Your task to perform on an android device: turn notification dots off Image 0: 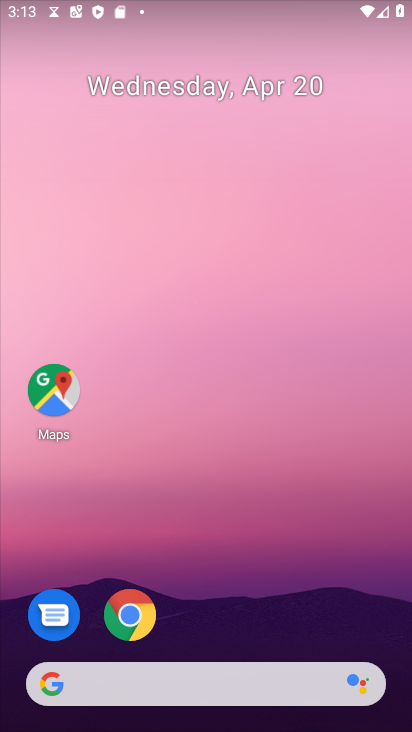
Step 0: drag from (207, 627) to (323, 168)
Your task to perform on an android device: turn notification dots off Image 1: 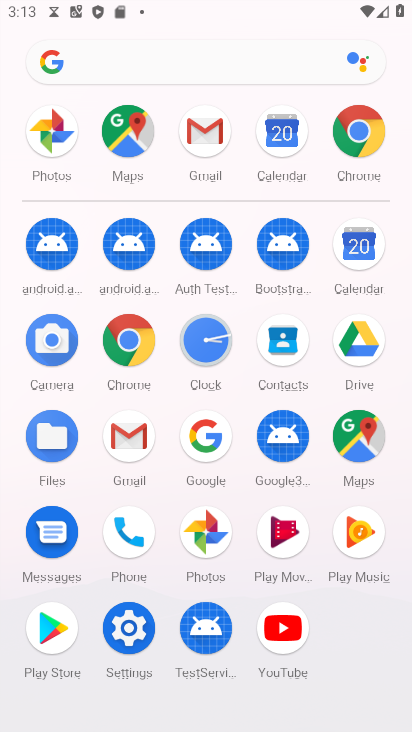
Step 1: click (124, 624)
Your task to perform on an android device: turn notification dots off Image 2: 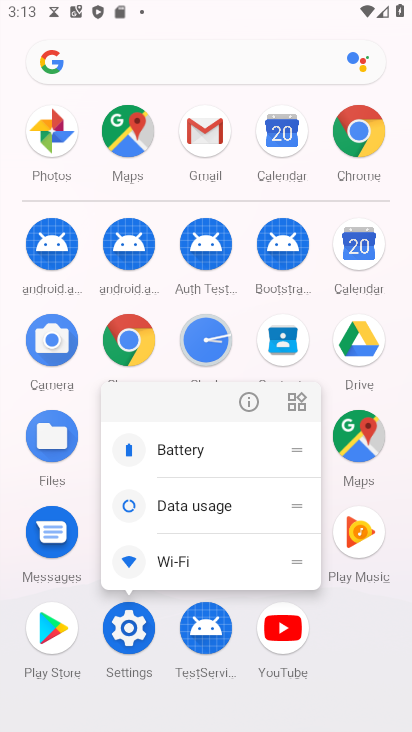
Step 2: click (250, 404)
Your task to perform on an android device: turn notification dots off Image 3: 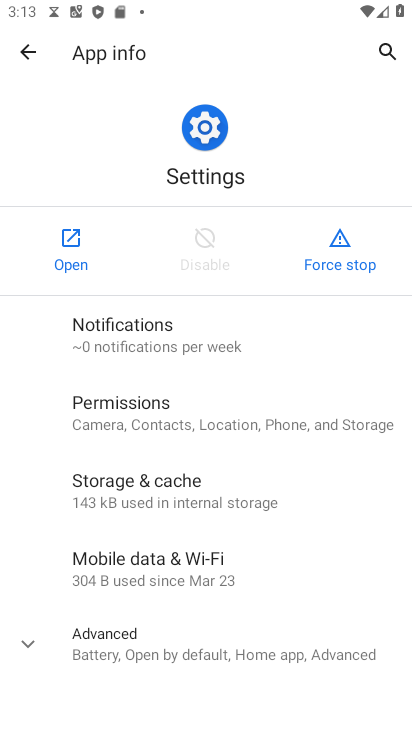
Step 3: click (59, 238)
Your task to perform on an android device: turn notification dots off Image 4: 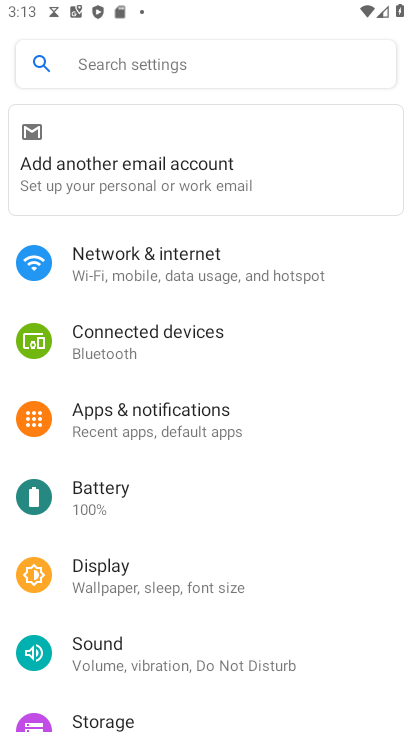
Step 4: click (196, 434)
Your task to perform on an android device: turn notification dots off Image 5: 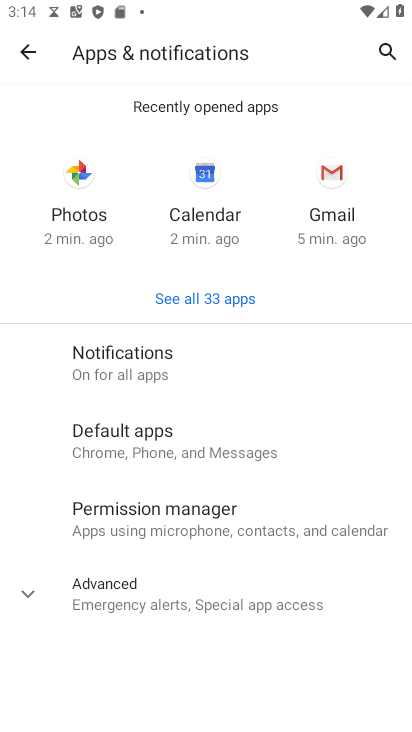
Step 5: click (160, 345)
Your task to perform on an android device: turn notification dots off Image 6: 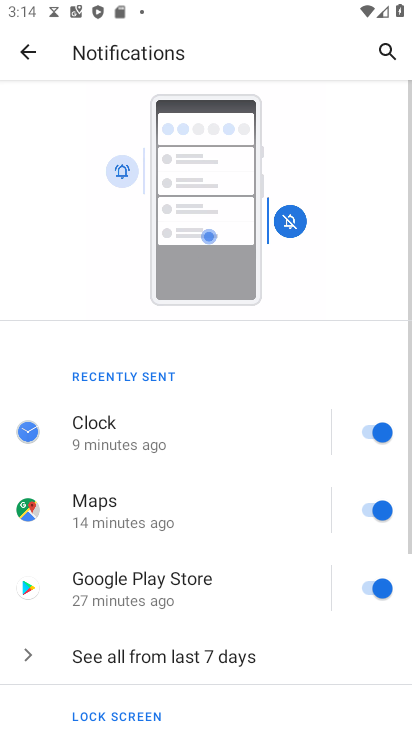
Step 6: drag from (244, 618) to (408, 141)
Your task to perform on an android device: turn notification dots off Image 7: 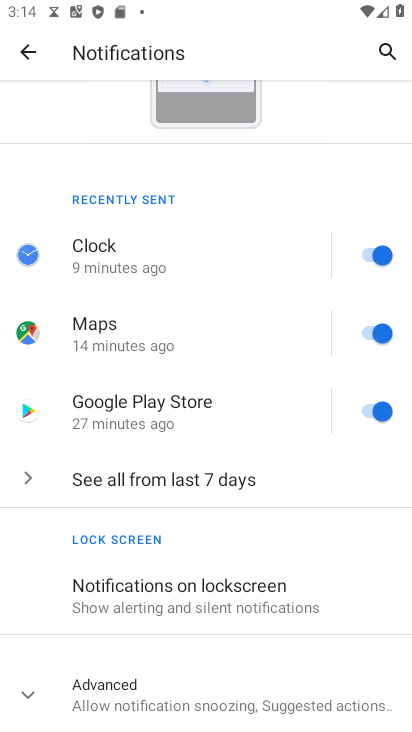
Step 7: click (123, 695)
Your task to perform on an android device: turn notification dots off Image 8: 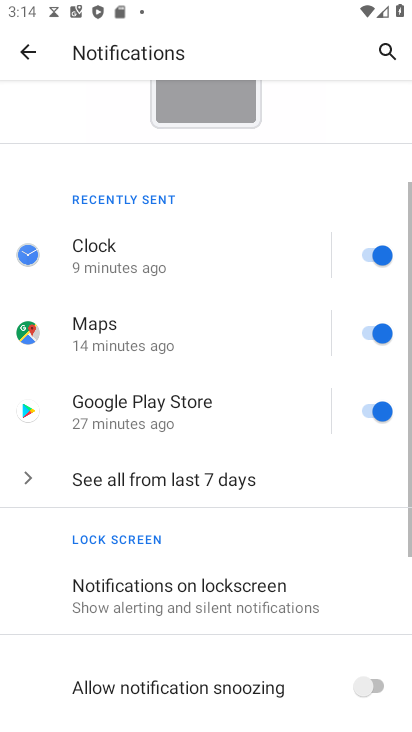
Step 8: task complete